Your task to perform on an android device: check storage Image 0: 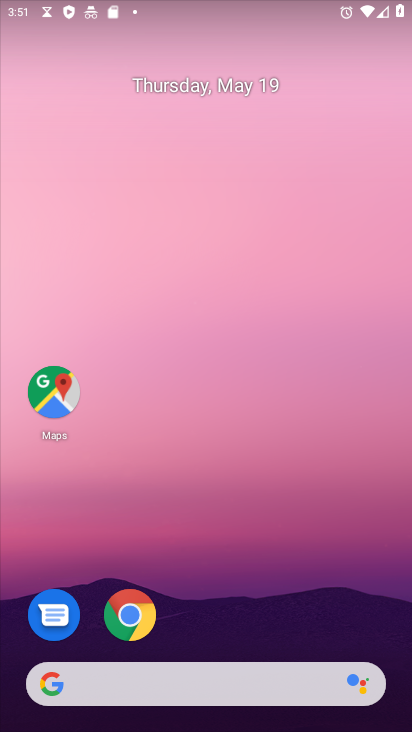
Step 0: drag from (345, 651) to (212, 54)
Your task to perform on an android device: check storage Image 1: 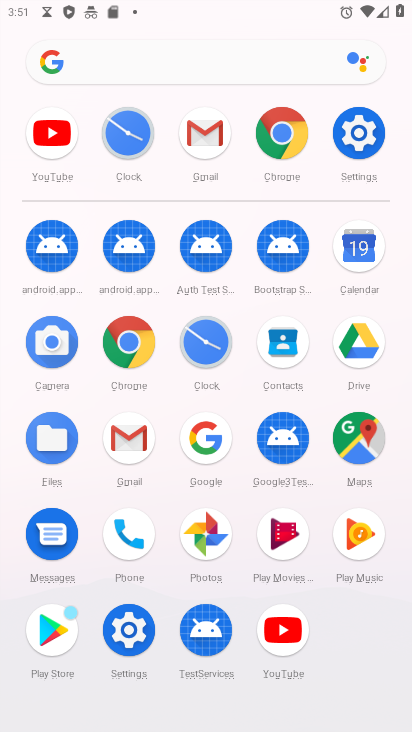
Step 1: click (118, 629)
Your task to perform on an android device: check storage Image 2: 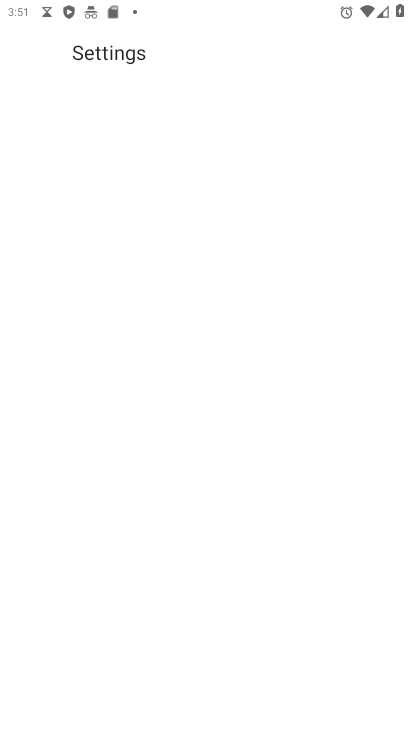
Step 2: click (118, 629)
Your task to perform on an android device: check storage Image 3: 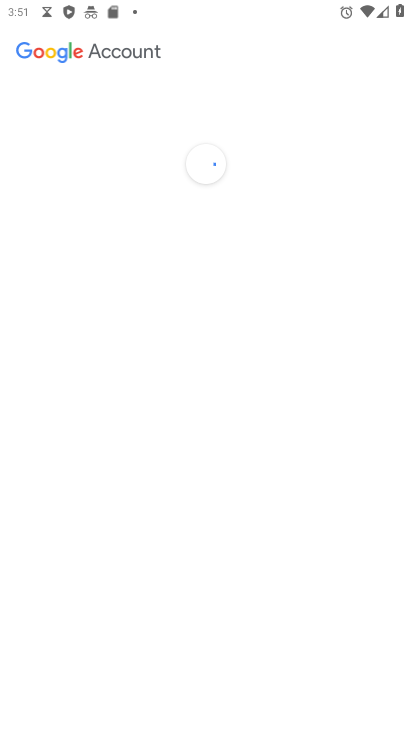
Step 3: click (92, 292)
Your task to perform on an android device: check storage Image 4: 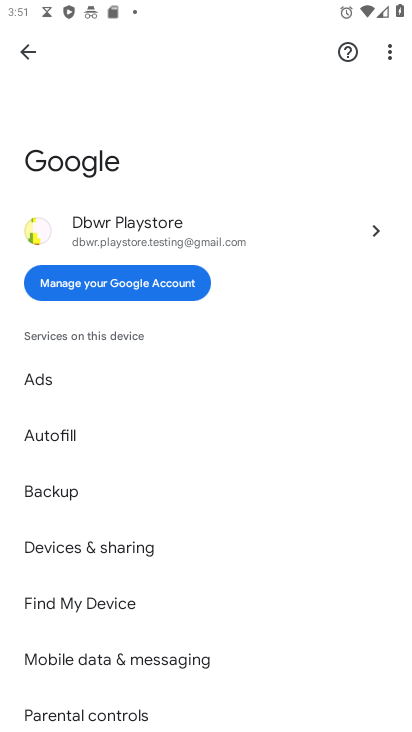
Step 4: press back button
Your task to perform on an android device: check storage Image 5: 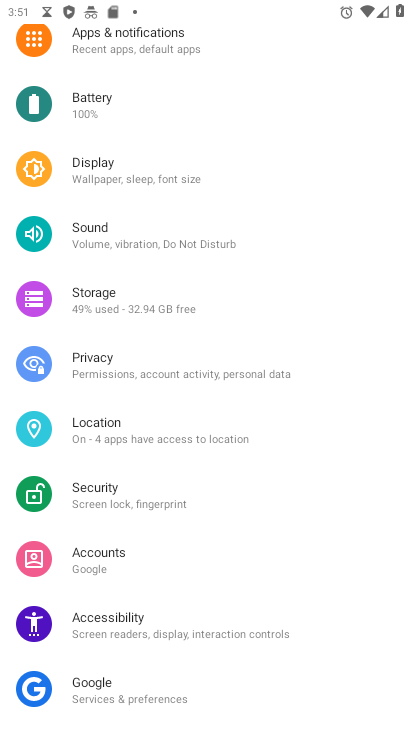
Step 5: click (103, 293)
Your task to perform on an android device: check storage Image 6: 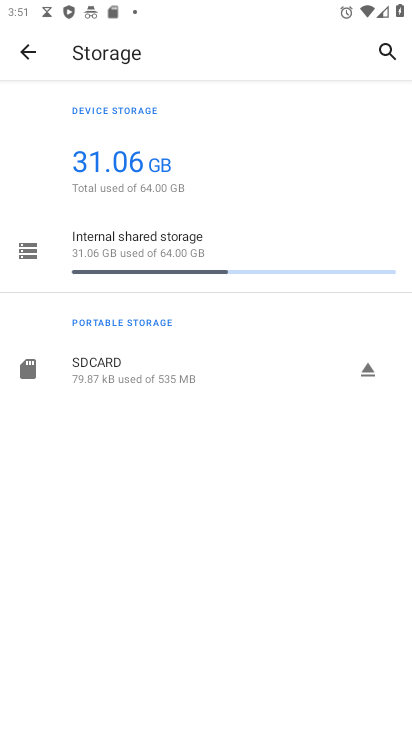
Step 6: task complete